Your task to perform on an android device: clear history in the chrome app Image 0: 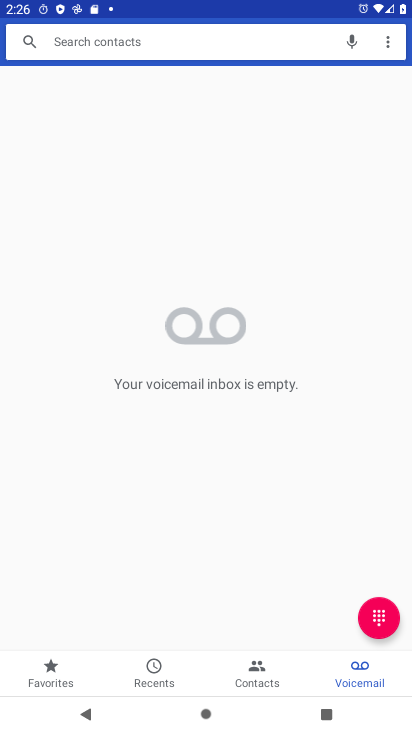
Step 0: press home button
Your task to perform on an android device: clear history in the chrome app Image 1: 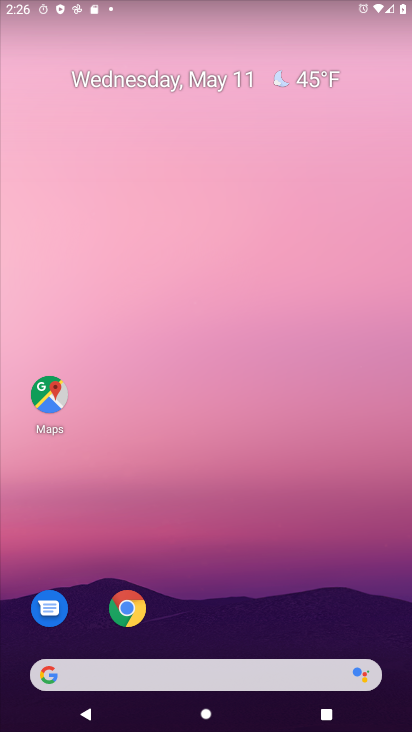
Step 1: click (137, 608)
Your task to perform on an android device: clear history in the chrome app Image 2: 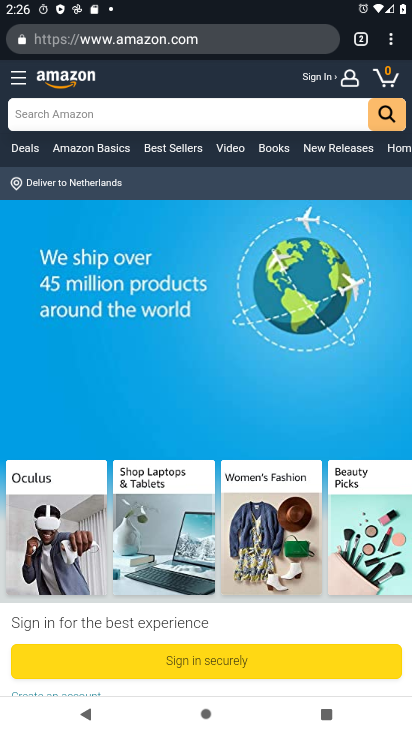
Step 2: click (384, 39)
Your task to perform on an android device: clear history in the chrome app Image 3: 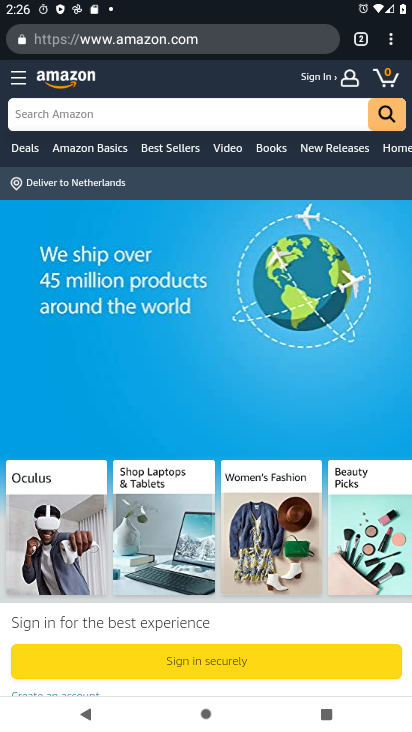
Step 3: click (381, 46)
Your task to perform on an android device: clear history in the chrome app Image 4: 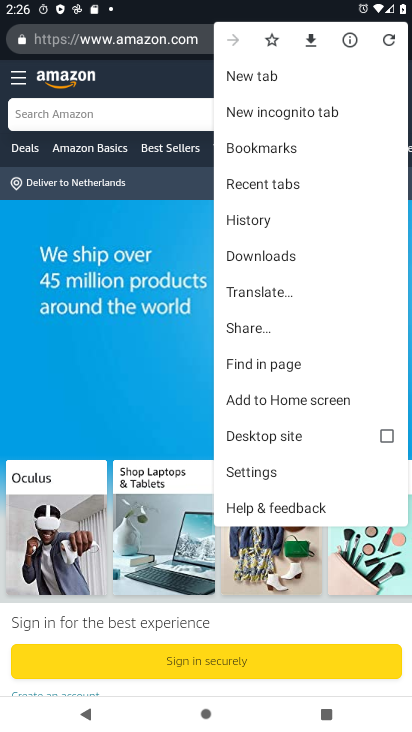
Step 4: click (281, 467)
Your task to perform on an android device: clear history in the chrome app Image 5: 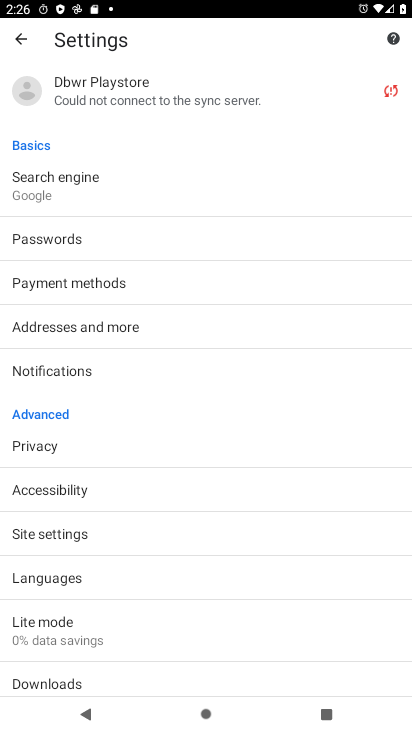
Step 5: click (46, 443)
Your task to perform on an android device: clear history in the chrome app Image 6: 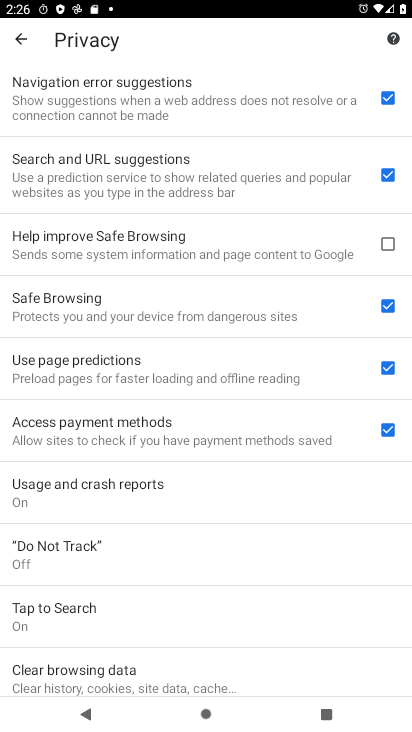
Step 6: drag from (222, 614) to (259, 336)
Your task to perform on an android device: clear history in the chrome app Image 7: 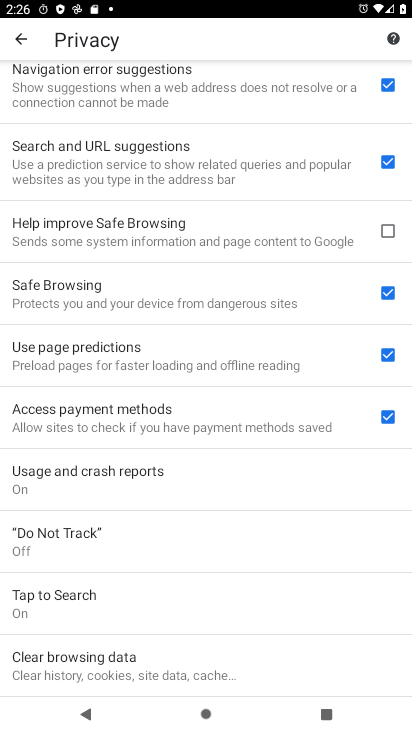
Step 7: click (139, 662)
Your task to perform on an android device: clear history in the chrome app Image 8: 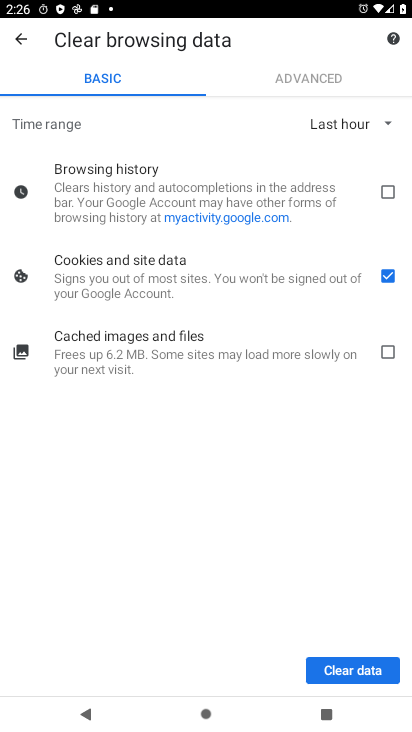
Step 8: click (391, 276)
Your task to perform on an android device: clear history in the chrome app Image 9: 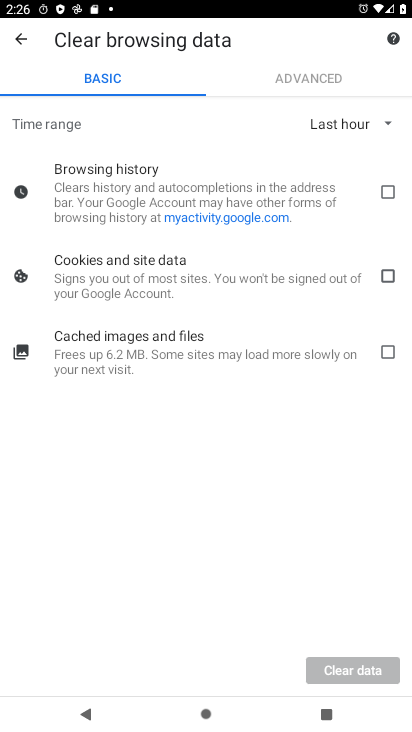
Step 9: click (388, 188)
Your task to perform on an android device: clear history in the chrome app Image 10: 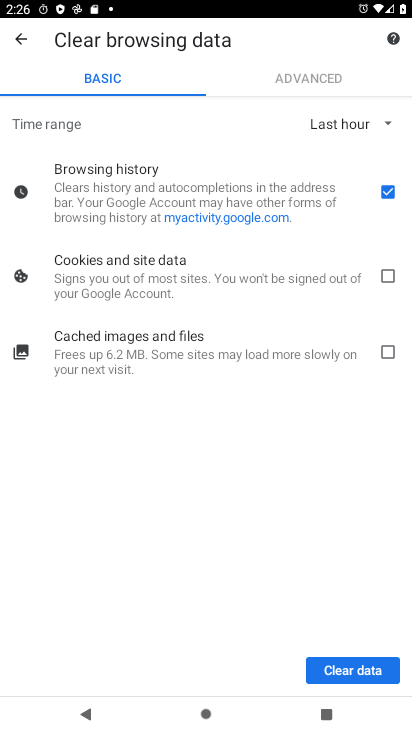
Step 10: click (350, 663)
Your task to perform on an android device: clear history in the chrome app Image 11: 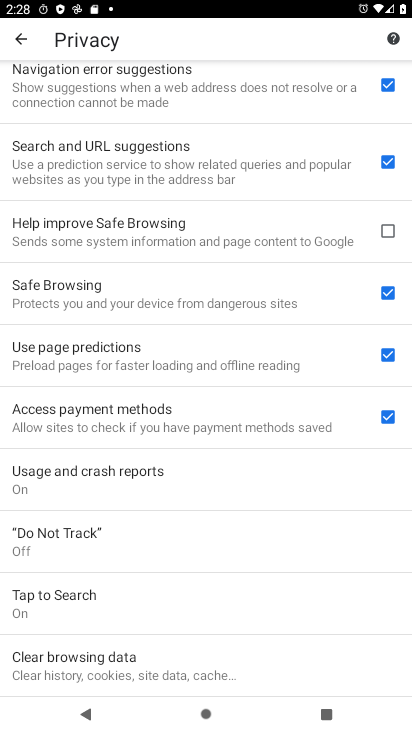
Step 11: task complete